Your task to perform on an android device: turn notification dots on Image 0: 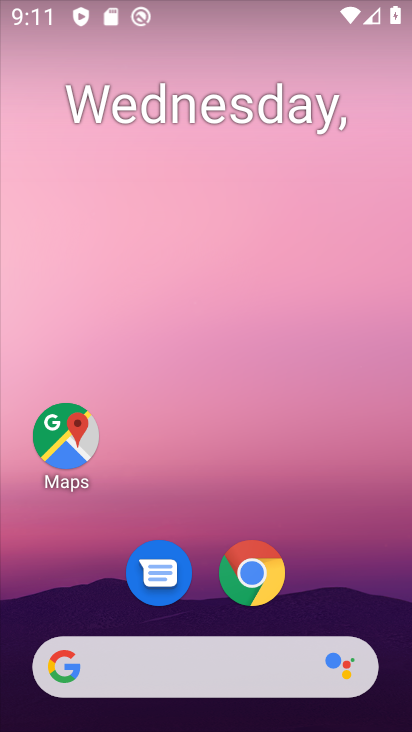
Step 0: drag from (300, 590) to (323, 333)
Your task to perform on an android device: turn notification dots on Image 1: 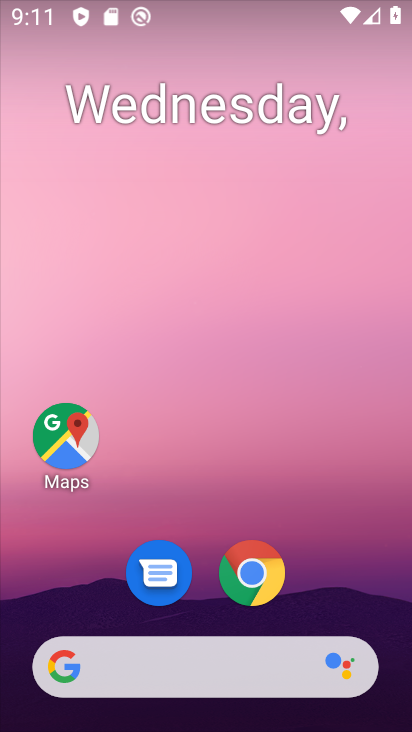
Step 1: drag from (181, 586) to (229, 232)
Your task to perform on an android device: turn notification dots on Image 2: 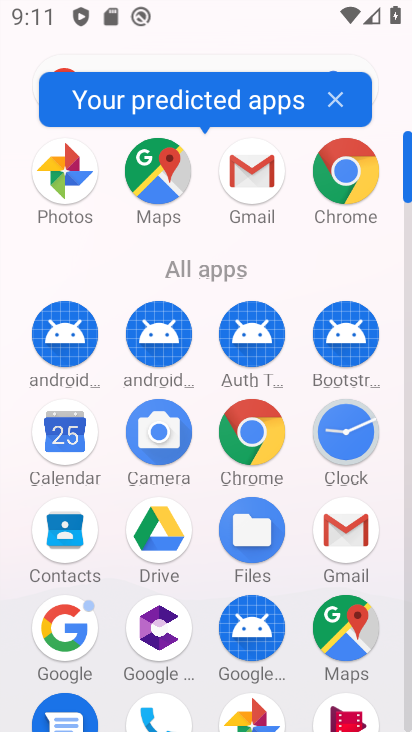
Step 2: drag from (294, 555) to (327, 256)
Your task to perform on an android device: turn notification dots on Image 3: 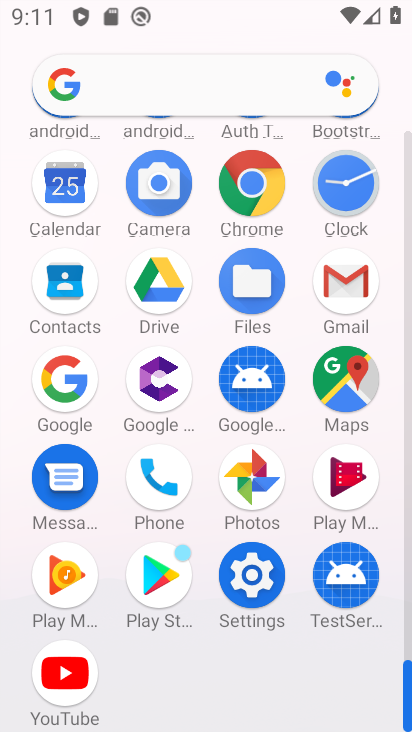
Step 3: click (263, 557)
Your task to perform on an android device: turn notification dots on Image 4: 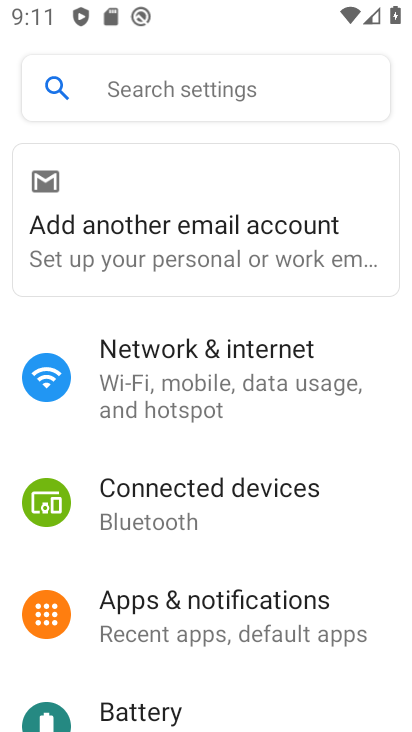
Step 4: click (213, 77)
Your task to perform on an android device: turn notification dots on Image 5: 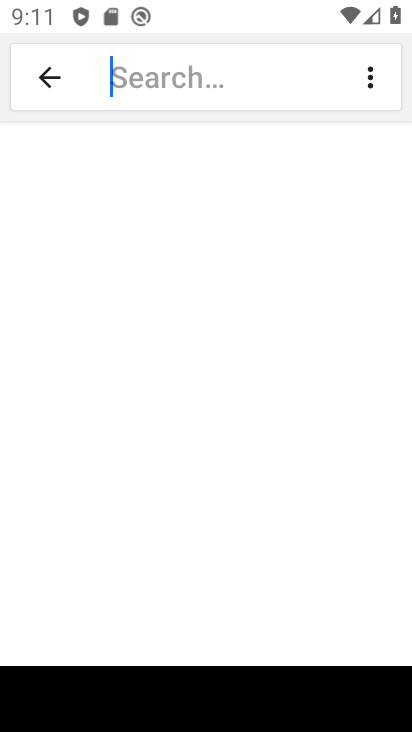
Step 5: click (147, 71)
Your task to perform on an android device: turn notification dots on Image 6: 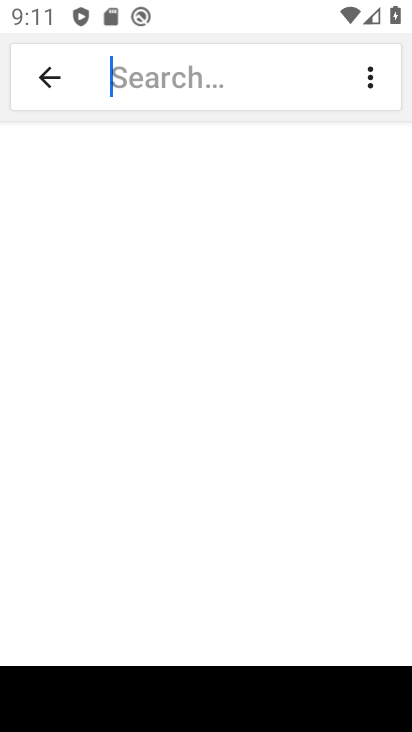
Step 6: type "notification dots"
Your task to perform on an android device: turn notification dots on Image 7: 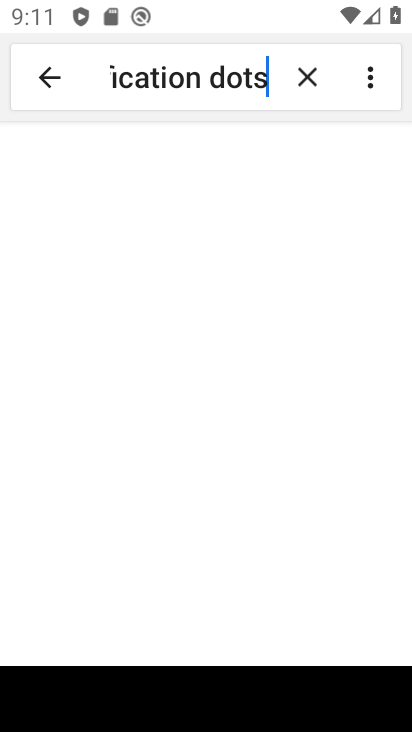
Step 7: click (245, 143)
Your task to perform on an android device: turn notification dots on Image 8: 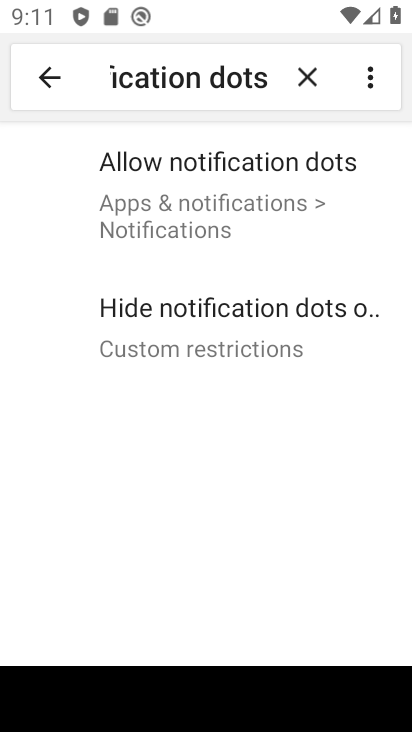
Step 8: drag from (196, 425) to (217, 236)
Your task to perform on an android device: turn notification dots on Image 9: 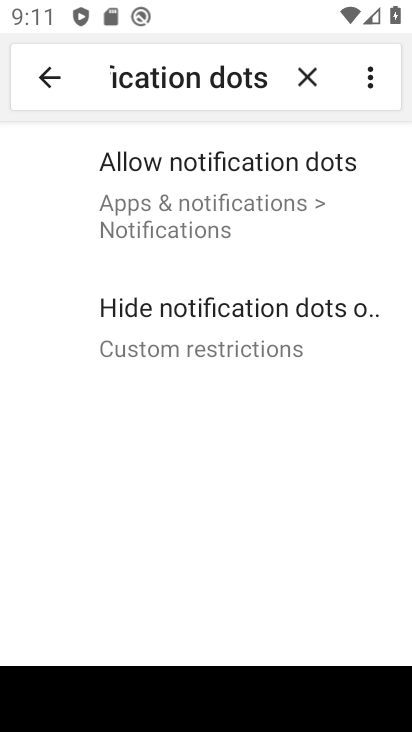
Step 9: click (220, 192)
Your task to perform on an android device: turn notification dots on Image 10: 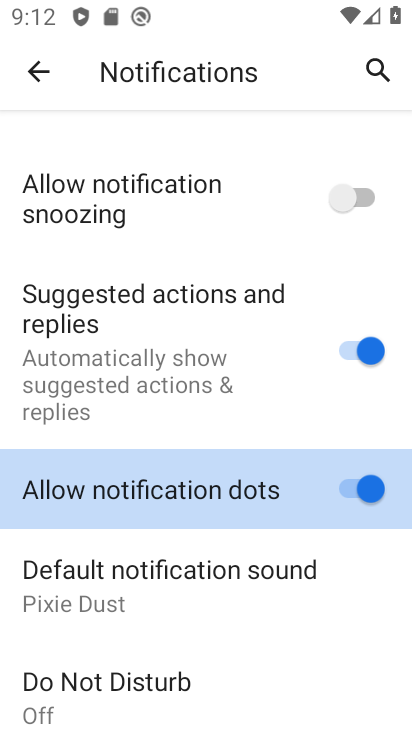
Step 10: task complete